Your task to perform on an android device: delete browsing data in the chrome app Image 0: 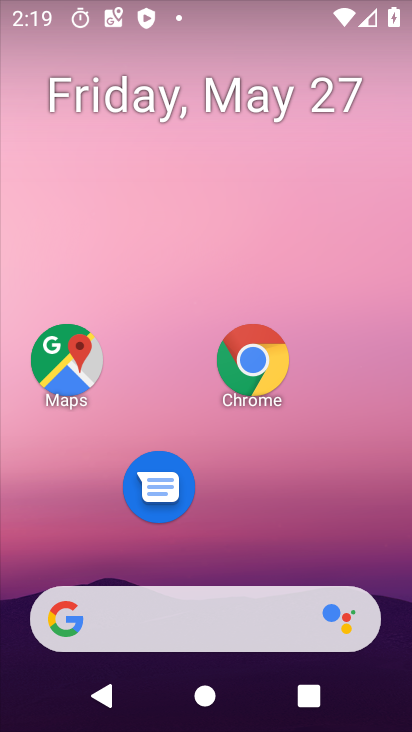
Step 0: click (257, 357)
Your task to perform on an android device: delete browsing data in the chrome app Image 1: 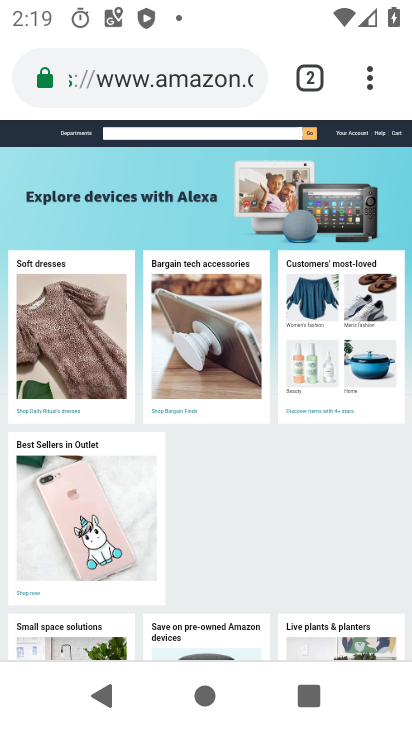
Step 1: click (360, 84)
Your task to perform on an android device: delete browsing data in the chrome app Image 2: 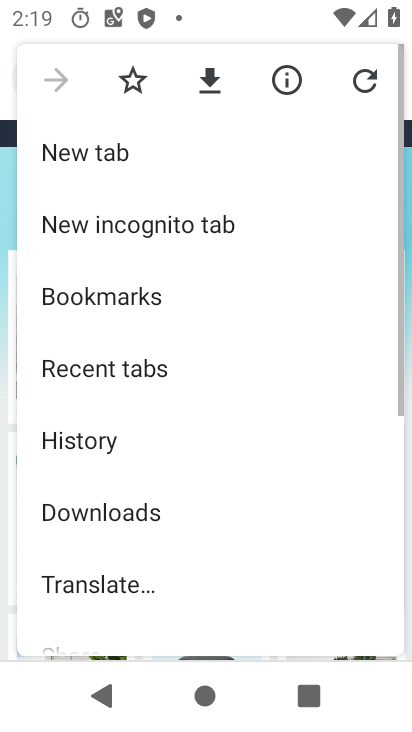
Step 2: drag from (203, 531) to (217, 172)
Your task to perform on an android device: delete browsing data in the chrome app Image 3: 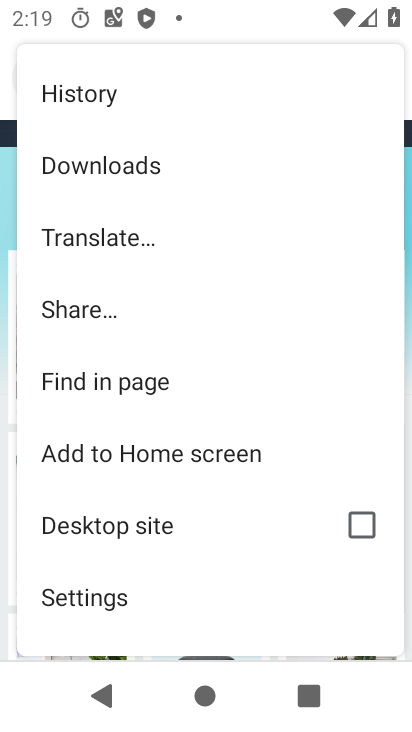
Step 3: click (105, 600)
Your task to perform on an android device: delete browsing data in the chrome app Image 4: 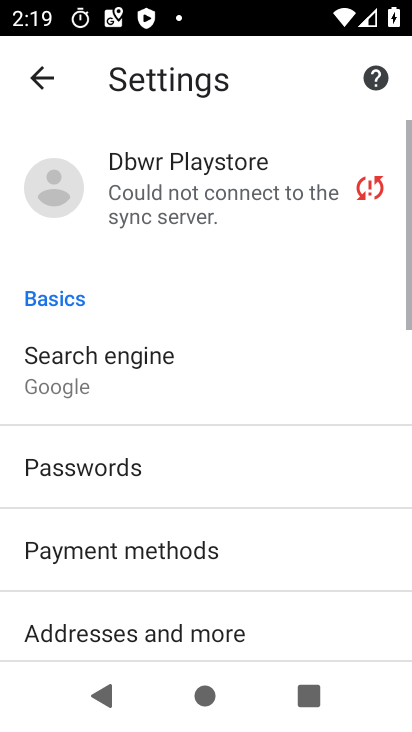
Step 4: drag from (177, 557) to (188, 157)
Your task to perform on an android device: delete browsing data in the chrome app Image 5: 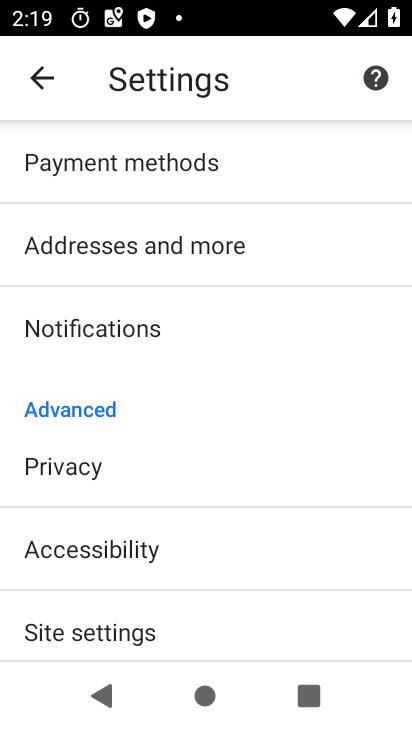
Step 5: click (93, 462)
Your task to perform on an android device: delete browsing data in the chrome app Image 6: 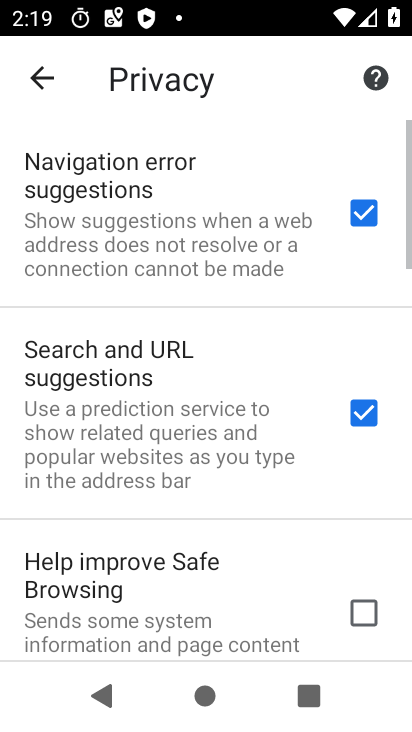
Step 6: drag from (217, 542) to (264, 251)
Your task to perform on an android device: delete browsing data in the chrome app Image 7: 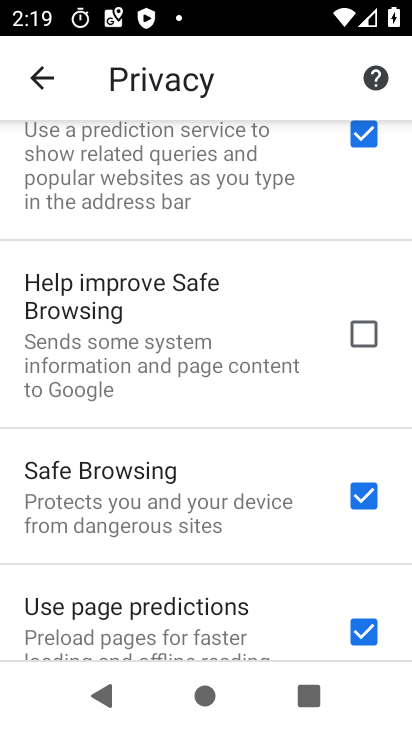
Step 7: drag from (244, 510) to (258, 142)
Your task to perform on an android device: delete browsing data in the chrome app Image 8: 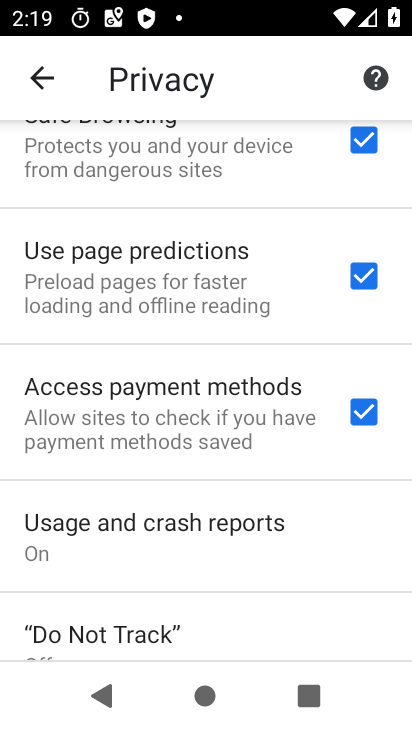
Step 8: drag from (205, 564) to (243, 210)
Your task to perform on an android device: delete browsing data in the chrome app Image 9: 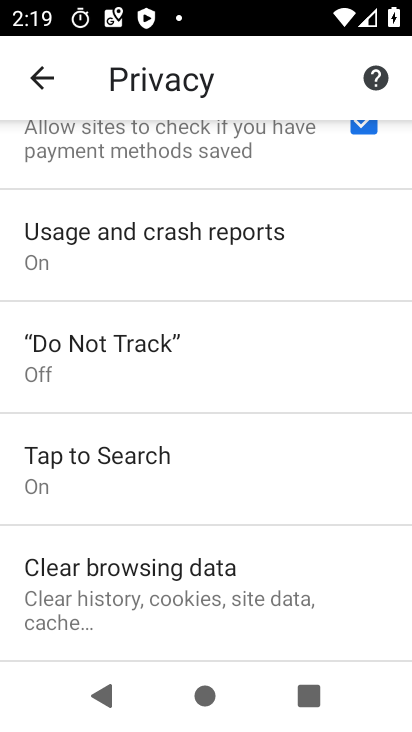
Step 9: click (179, 581)
Your task to perform on an android device: delete browsing data in the chrome app Image 10: 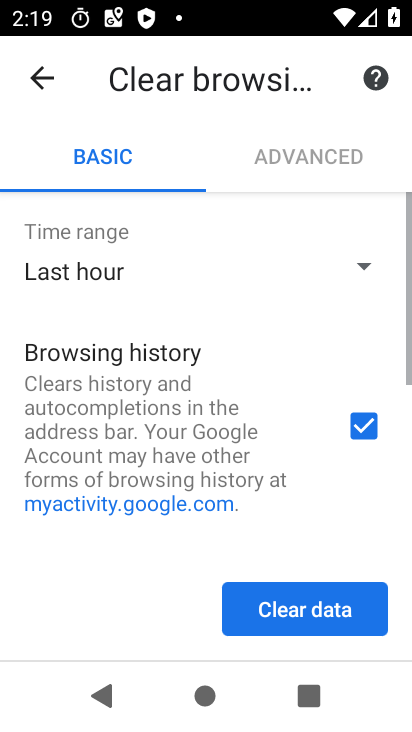
Step 10: drag from (323, 460) to (348, 205)
Your task to perform on an android device: delete browsing data in the chrome app Image 11: 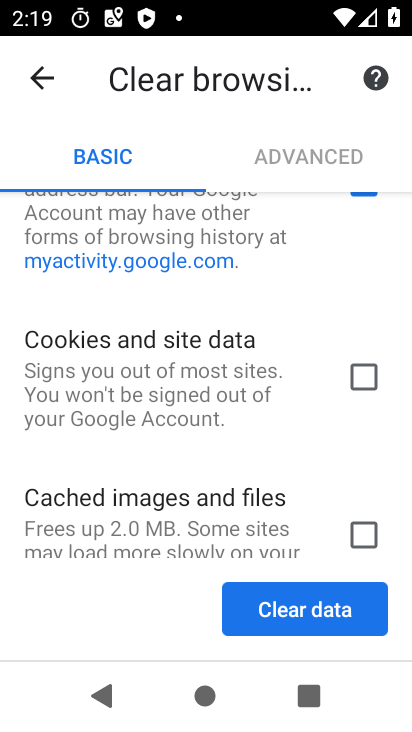
Step 11: click (304, 621)
Your task to perform on an android device: delete browsing data in the chrome app Image 12: 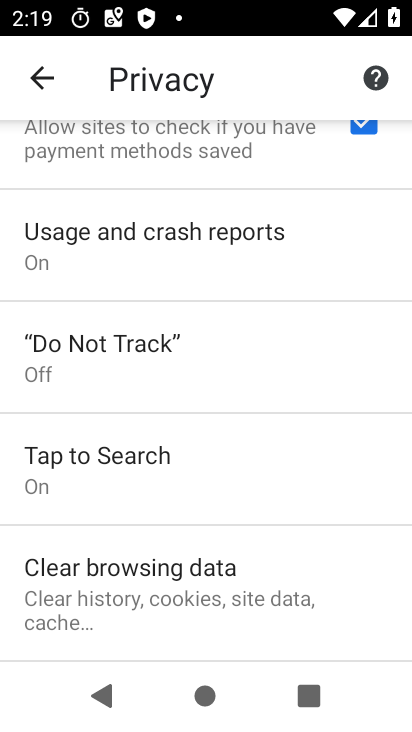
Step 12: task complete